Your task to perform on an android device: open wifi settings Image 0: 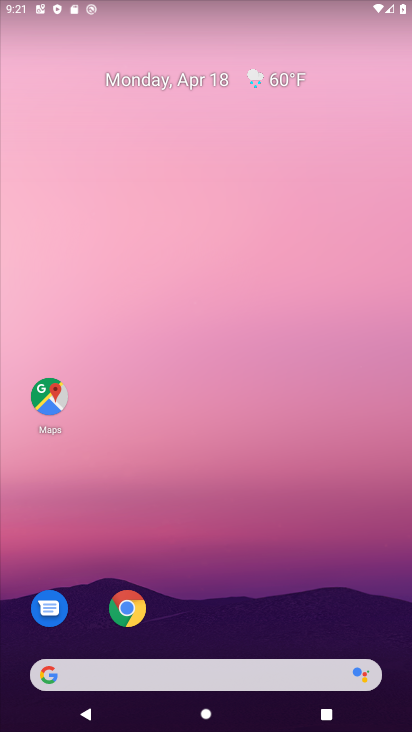
Step 0: drag from (171, 590) to (324, 28)
Your task to perform on an android device: open wifi settings Image 1: 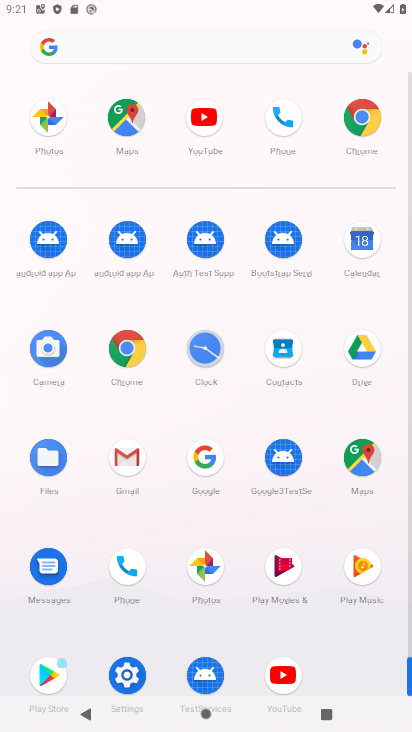
Step 1: click (140, 681)
Your task to perform on an android device: open wifi settings Image 2: 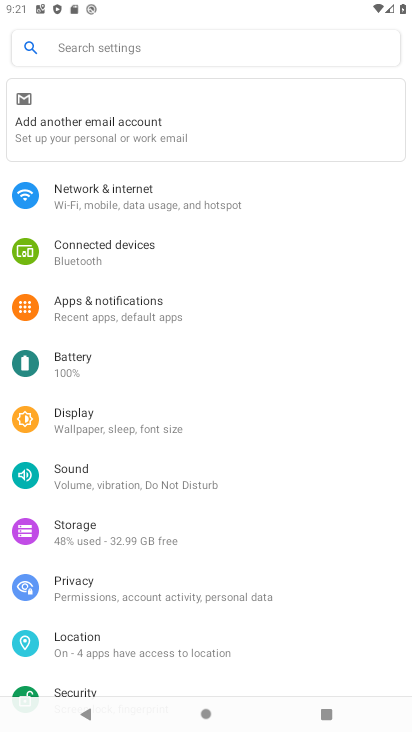
Step 2: click (242, 193)
Your task to perform on an android device: open wifi settings Image 3: 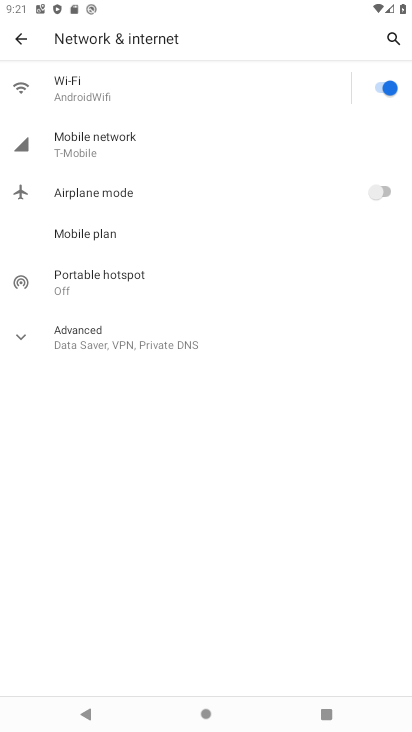
Step 3: click (204, 97)
Your task to perform on an android device: open wifi settings Image 4: 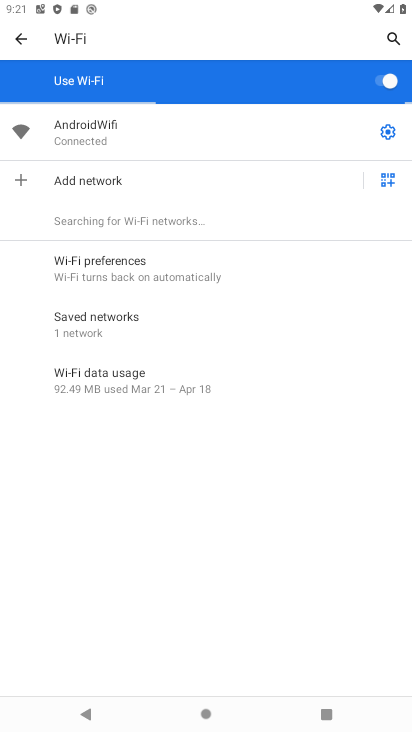
Step 4: click (221, 130)
Your task to perform on an android device: open wifi settings Image 5: 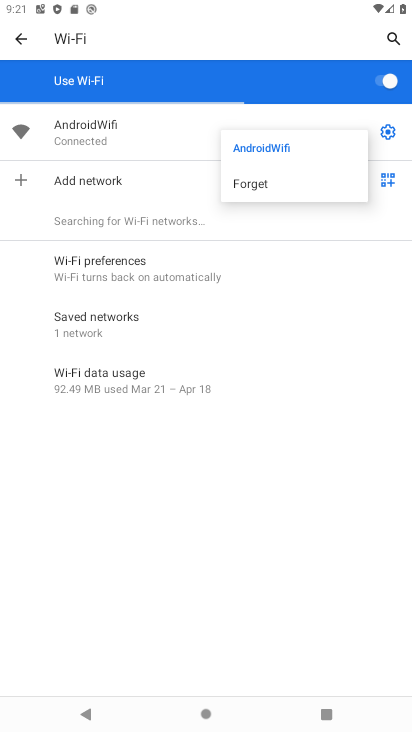
Step 5: click (381, 129)
Your task to perform on an android device: open wifi settings Image 6: 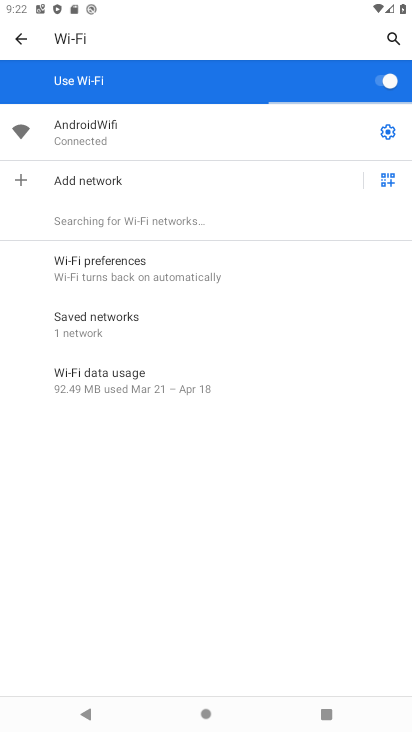
Step 6: click (390, 135)
Your task to perform on an android device: open wifi settings Image 7: 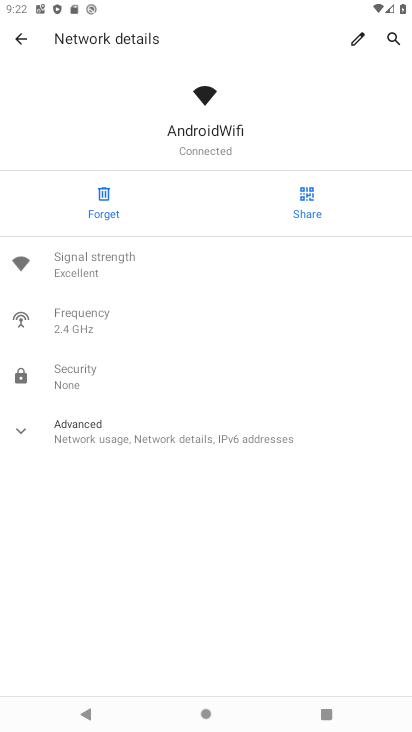
Step 7: task complete